Your task to perform on an android device: Open Reddit.com Image 0: 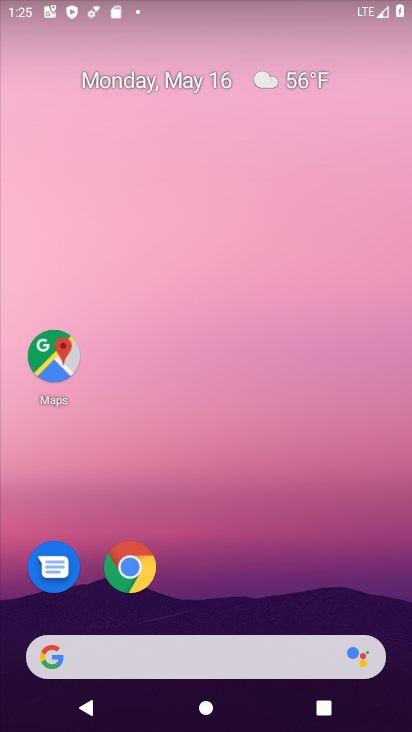
Step 0: click (196, 665)
Your task to perform on an android device: Open Reddit.com Image 1: 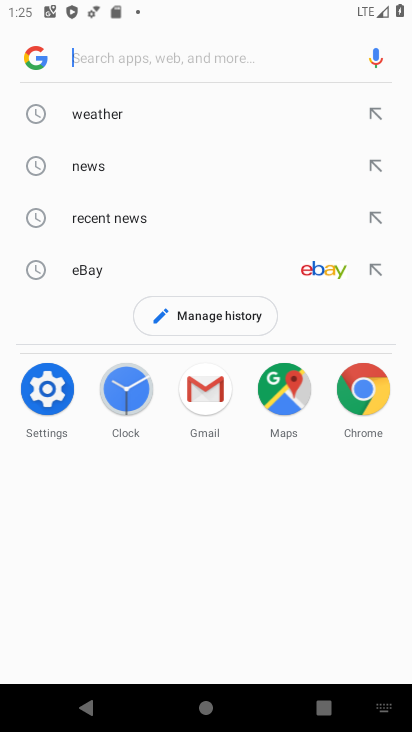
Step 1: type "Reddit.com"
Your task to perform on an android device: Open Reddit.com Image 2: 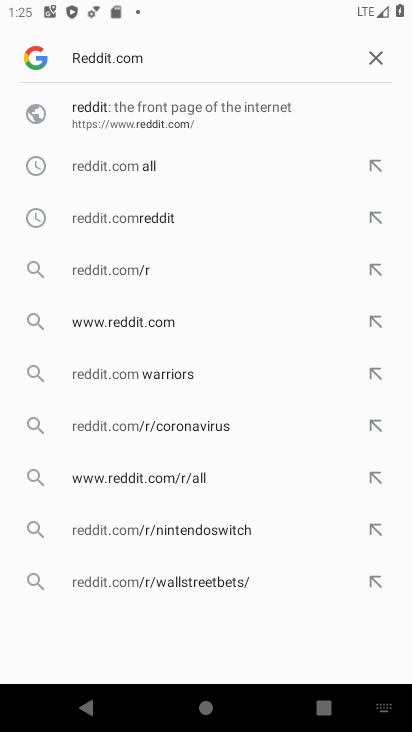
Step 2: click (165, 130)
Your task to perform on an android device: Open Reddit.com Image 3: 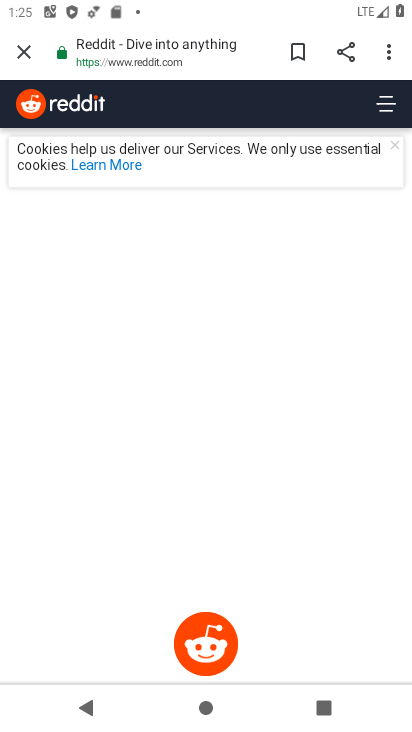
Step 3: task complete